Your task to perform on an android device: Open the Play Movies app and select the watchlist tab. Image 0: 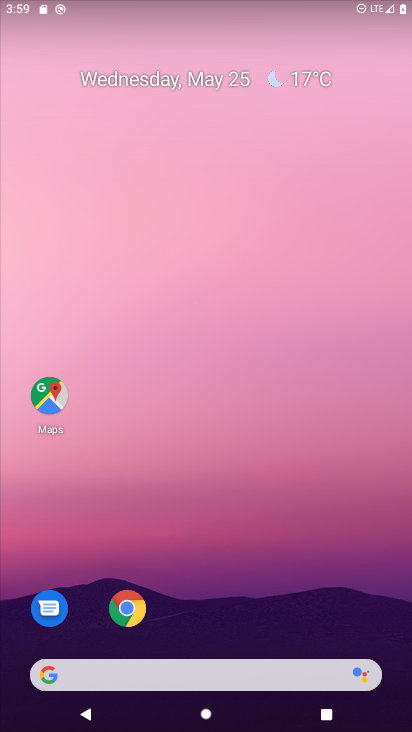
Step 0: drag from (365, 615) to (316, 48)
Your task to perform on an android device: Open the Play Movies app and select the watchlist tab. Image 1: 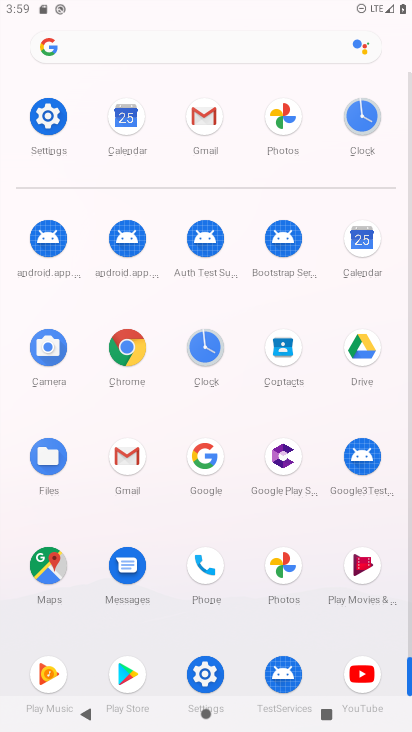
Step 1: click (363, 564)
Your task to perform on an android device: Open the Play Movies app and select the watchlist tab. Image 2: 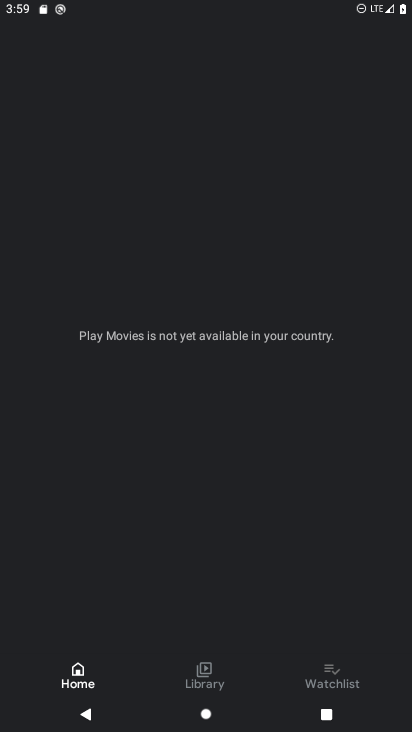
Step 2: click (322, 672)
Your task to perform on an android device: Open the Play Movies app and select the watchlist tab. Image 3: 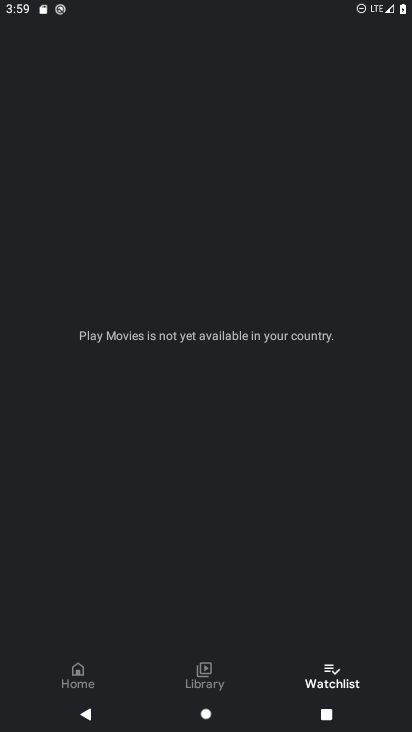
Step 3: task complete